Your task to perform on an android device: clear all cookies in the chrome app Image 0: 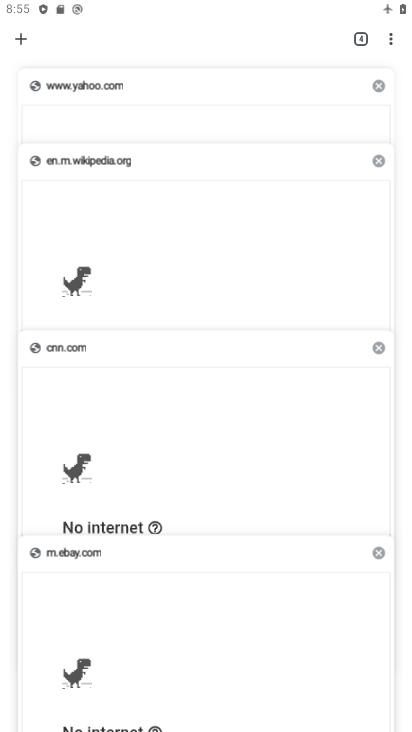
Step 0: press home button
Your task to perform on an android device: clear all cookies in the chrome app Image 1: 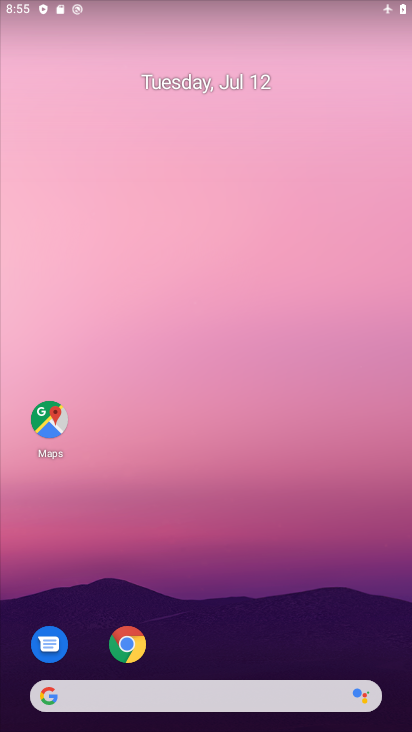
Step 1: click (133, 631)
Your task to perform on an android device: clear all cookies in the chrome app Image 2: 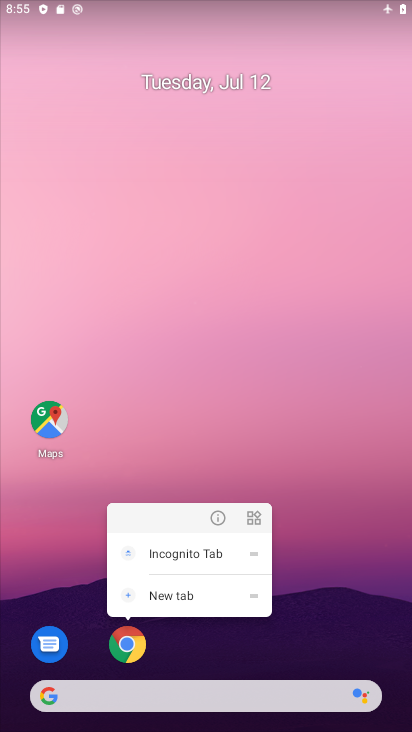
Step 2: click (133, 637)
Your task to perform on an android device: clear all cookies in the chrome app Image 3: 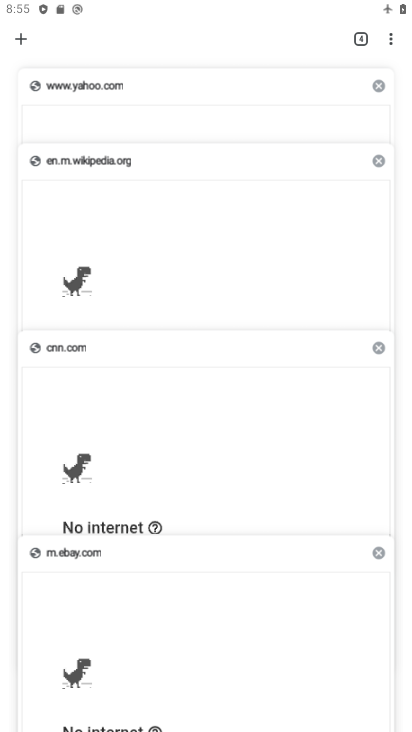
Step 3: click (382, 40)
Your task to perform on an android device: clear all cookies in the chrome app Image 4: 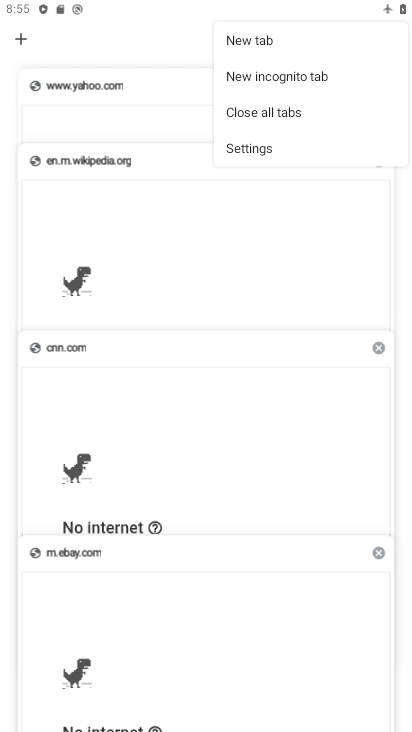
Step 4: click (263, 155)
Your task to perform on an android device: clear all cookies in the chrome app Image 5: 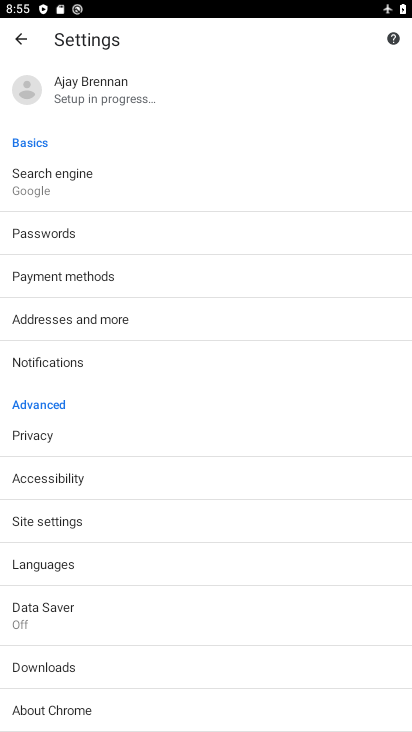
Step 5: click (26, 41)
Your task to perform on an android device: clear all cookies in the chrome app Image 6: 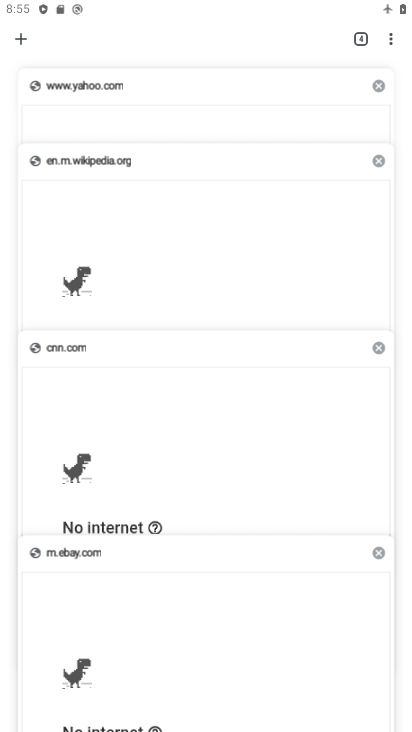
Step 6: click (394, 42)
Your task to perform on an android device: clear all cookies in the chrome app Image 7: 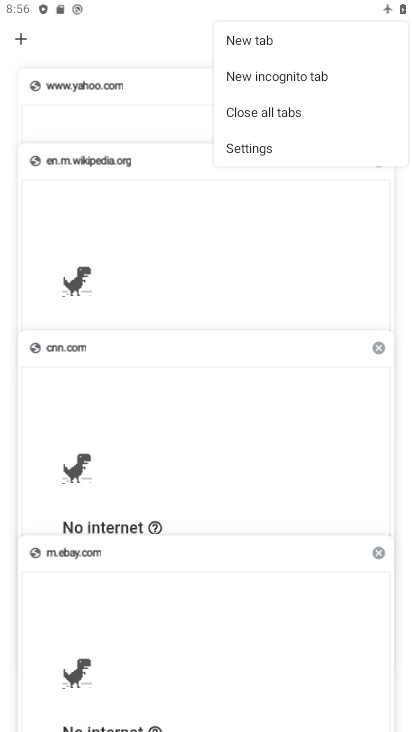
Step 7: click (180, 192)
Your task to perform on an android device: clear all cookies in the chrome app Image 8: 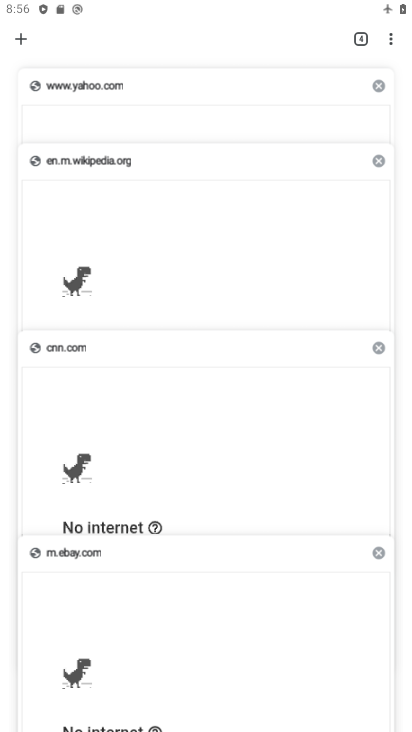
Step 8: click (385, 37)
Your task to perform on an android device: clear all cookies in the chrome app Image 9: 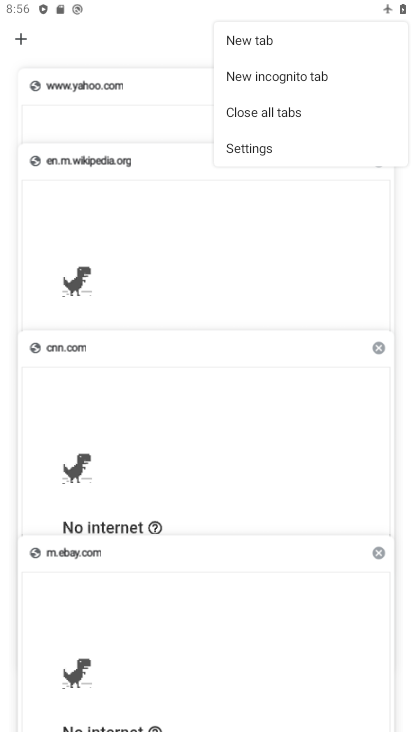
Step 9: click (233, 288)
Your task to perform on an android device: clear all cookies in the chrome app Image 10: 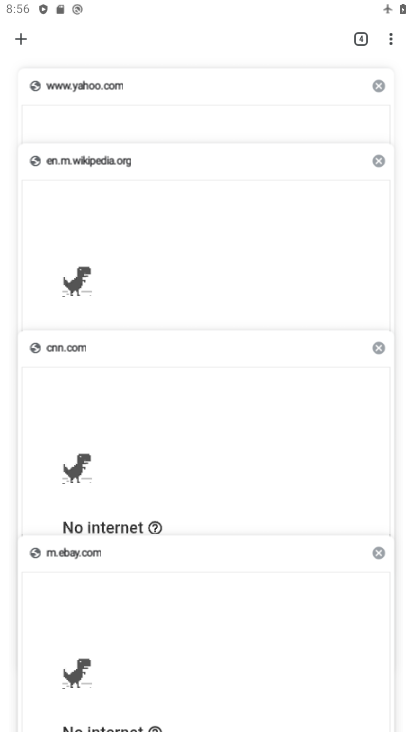
Step 10: click (98, 187)
Your task to perform on an android device: clear all cookies in the chrome app Image 11: 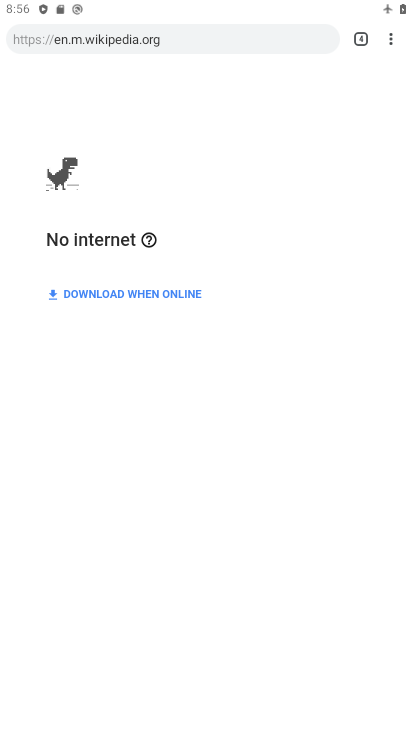
Step 11: click (390, 40)
Your task to perform on an android device: clear all cookies in the chrome app Image 12: 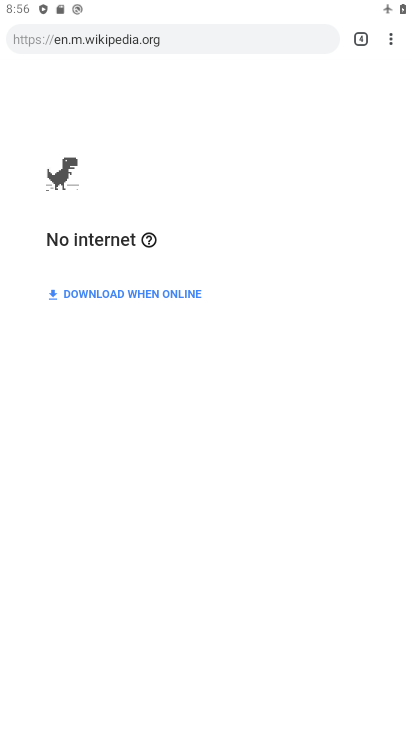
Step 12: click (390, 40)
Your task to perform on an android device: clear all cookies in the chrome app Image 13: 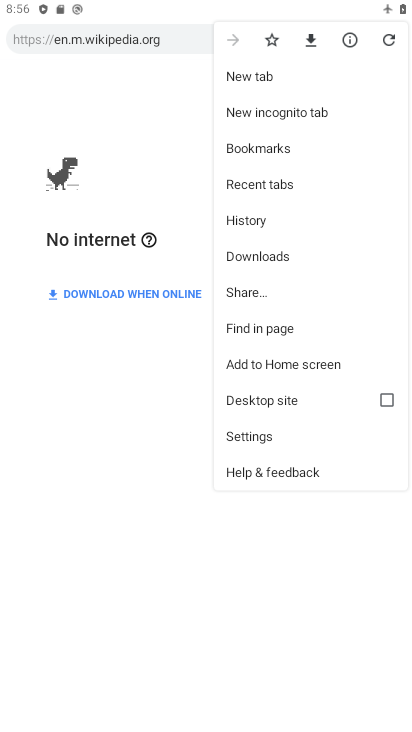
Step 13: click (280, 211)
Your task to perform on an android device: clear all cookies in the chrome app Image 14: 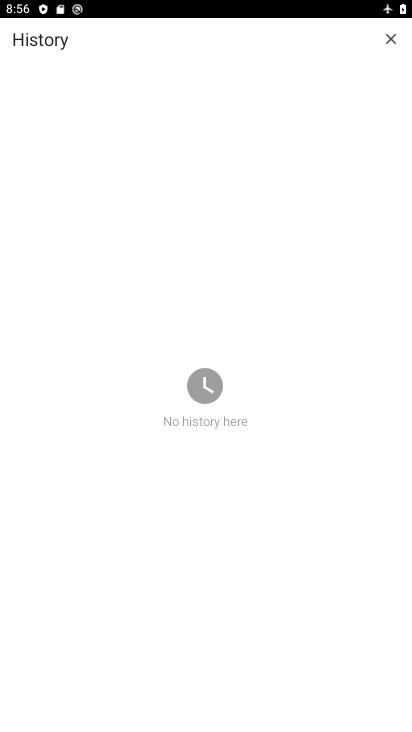
Step 14: task complete